Your task to perform on an android device: Go to privacy settings Image 0: 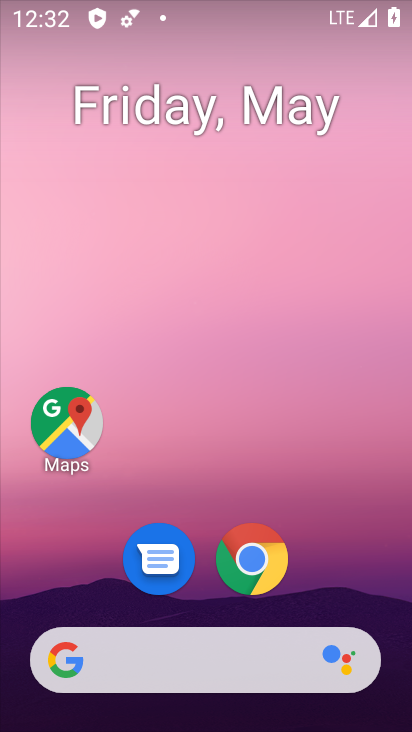
Step 0: drag from (376, 523) to (387, 80)
Your task to perform on an android device: Go to privacy settings Image 1: 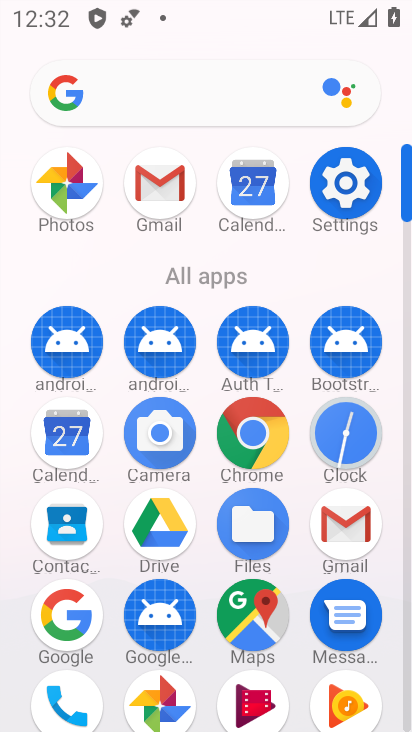
Step 1: click (344, 173)
Your task to perform on an android device: Go to privacy settings Image 2: 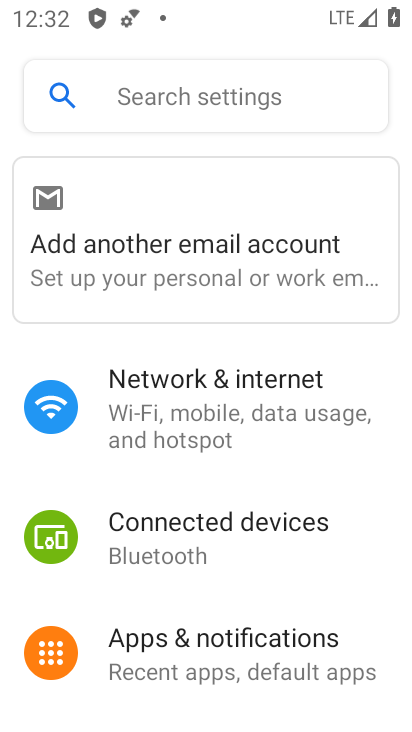
Step 2: drag from (283, 617) to (350, 109)
Your task to perform on an android device: Go to privacy settings Image 3: 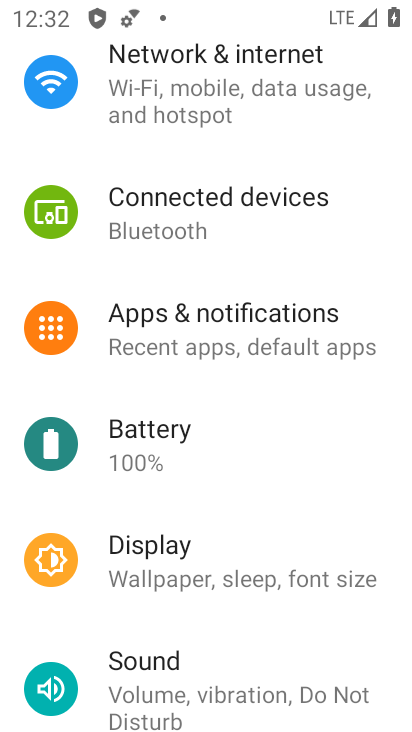
Step 3: drag from (205, 678) to (359, 201)
Your task to perform on an android device: Go to privacy settings Image 4: 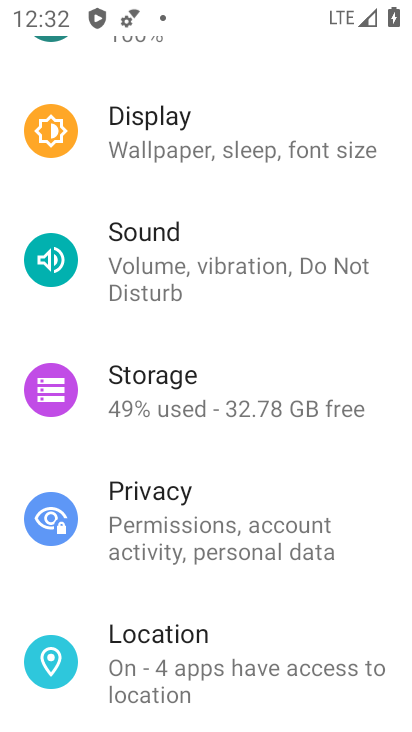
Step 4: click (186, 519)
Your task to perform on an android device: Go to privacy settings Image 5: 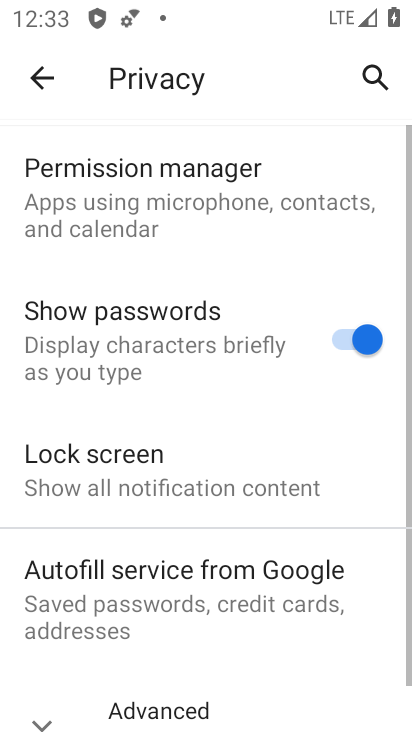
Step 5: task complete